Your task to perform on an android device: What's on my calendar tomorrow? Image 0: 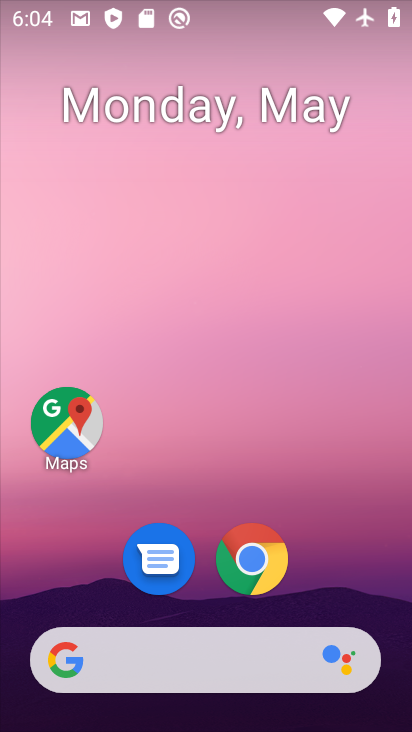
Step 0: drag from (351, 553) to (205, 23)
Your task to perform on an android device: What's on my calendar tomorrow? Image 1: 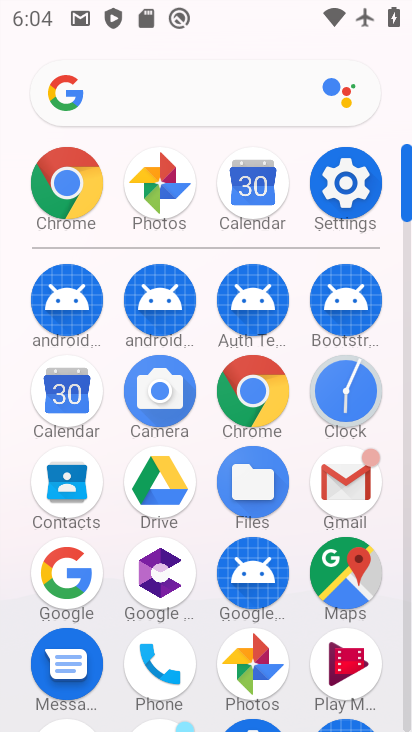
Step 1: click (68, 399)
Your task to perform on an android device: What's on my calendar tomorrow? Image 2: 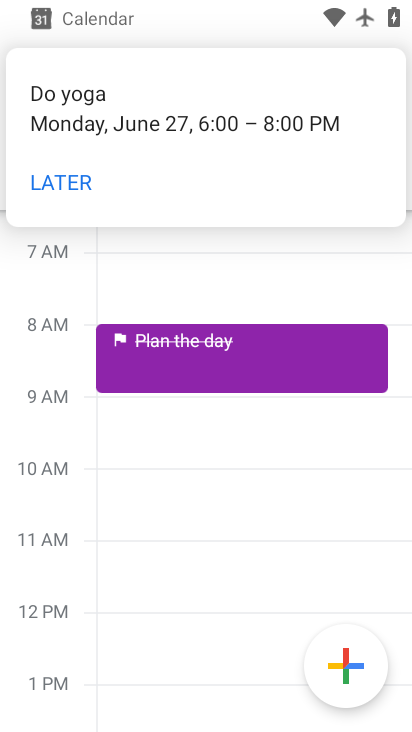
Step 2: press home button
Your task to perform on an android device: What's on my calendar tomorrow? Image 3: 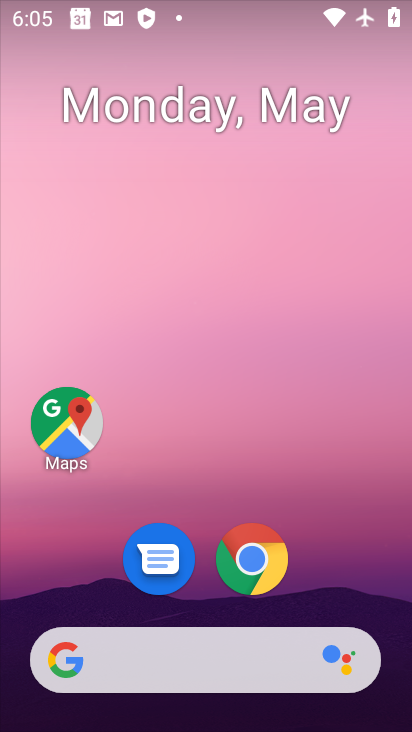
Step 3: drag from (312, 492) to (265, 9)
Your task to perform on an android device: What's on my calendar tomorrow? Image 4: 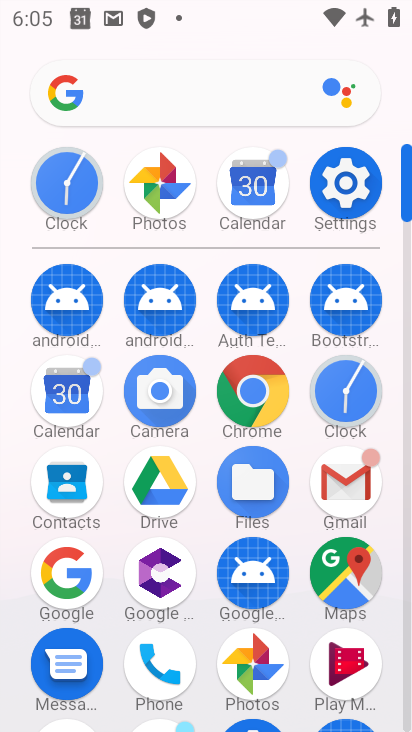
Step 4: click (58, 392)
Your task to perform on an android device: What's on my calendar tomorrow? Image 5: 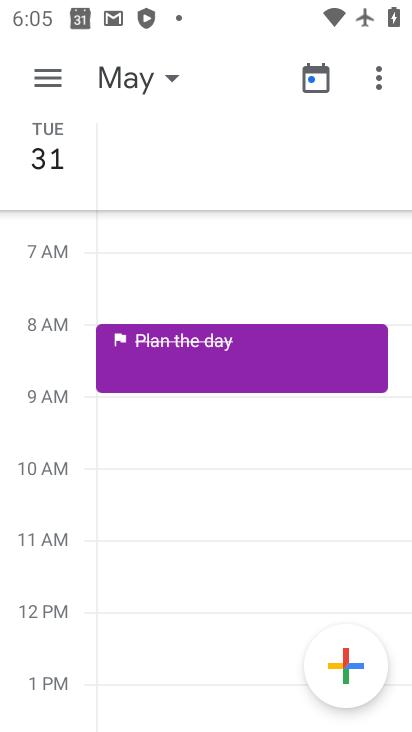
Step 5: click (168, 78)
Your task to perform on an android device: What's on my calendar tomorrow? Image 6: 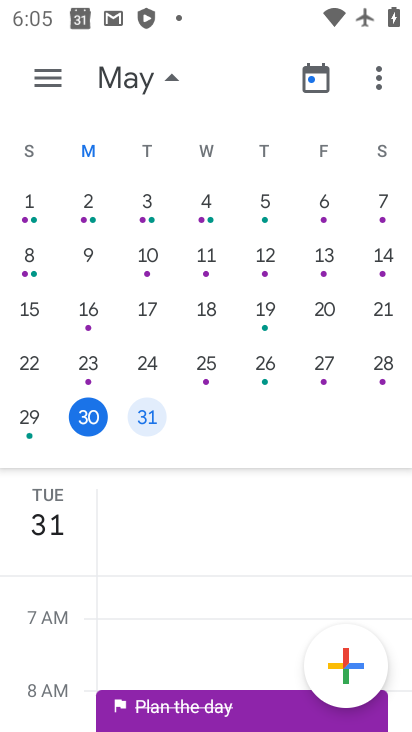
Step 6: click (148, 416)
Your task to perform on an android device: What's on my calendar tomorrow? Image 7: 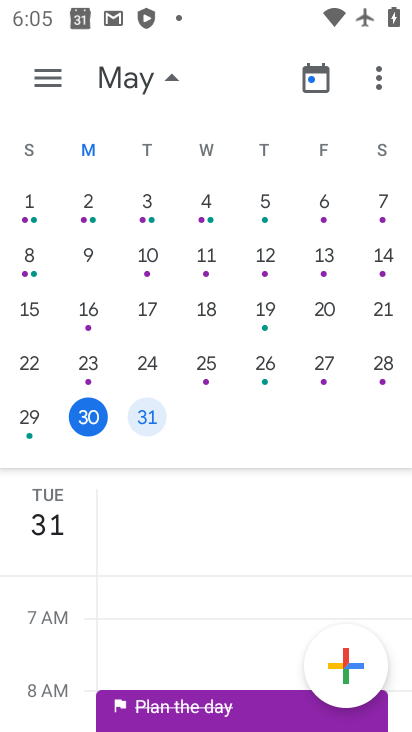
Step 7: click (148, 416)
Your task to perform on an android device: What's on my calendar tomorrow? Image 8: 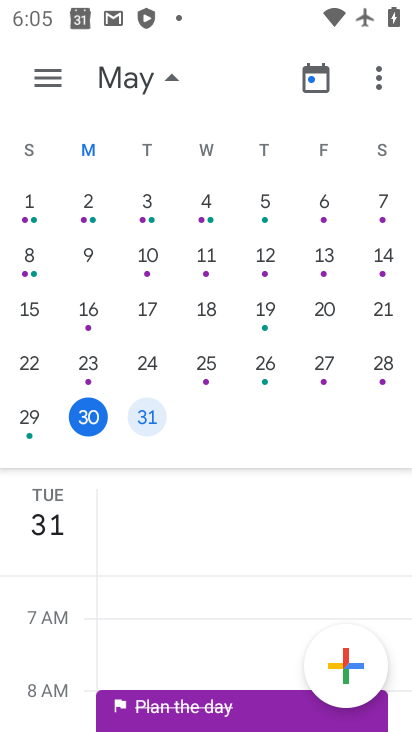
Step 8: click (148, 416)
Your task to perform on an android device: What's on my calendar tomorrow? Image 9: 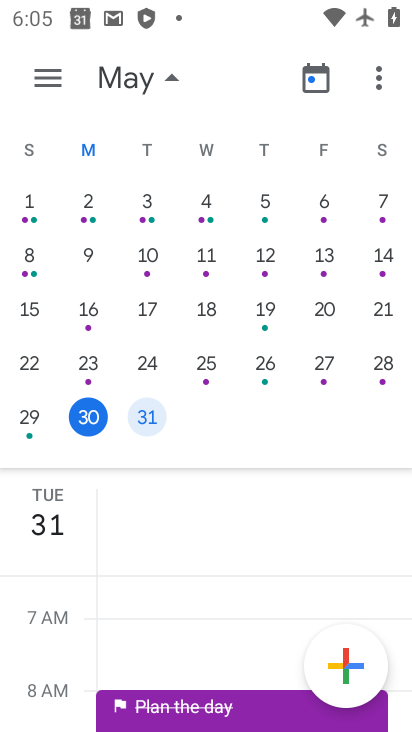
Step 9: click (140, 421)
Your task to perform on an android device: What's on my calendar tomorrow? Image 10: 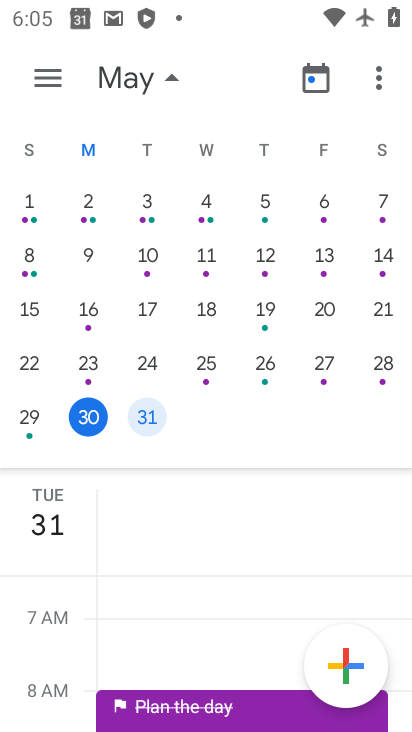
Step 10: click (140, 421)
Your task to perform on an android device: What's on my calendar tomorrow? Image 11: 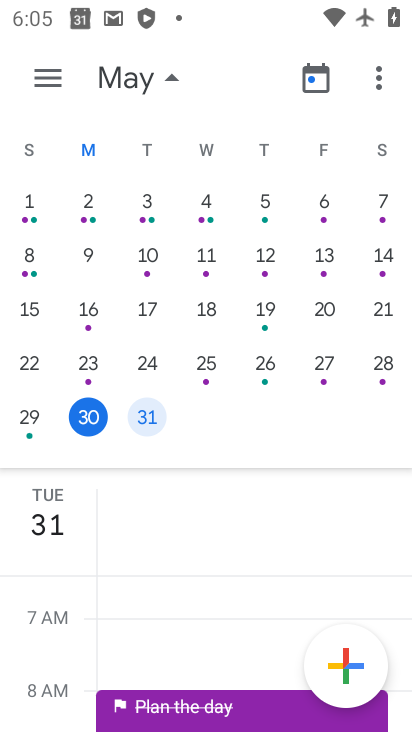
Step 11: click (140, 421)
Your task to perform on an android device: What's on my calendar tomorrow? Image 12: 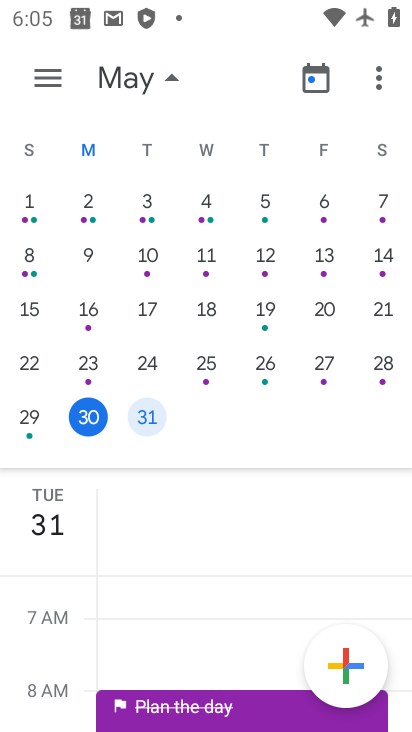
Step 12: click (140, 421)
Your task to perform on an android device: What's on my calendar tomorrow? Image 13: 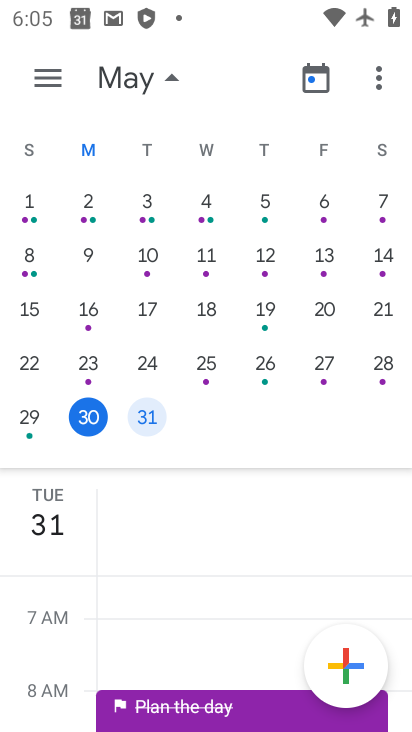
Step 13: task complete